Your task to perform on an android device: Set an alarm for 12pm Image 0: 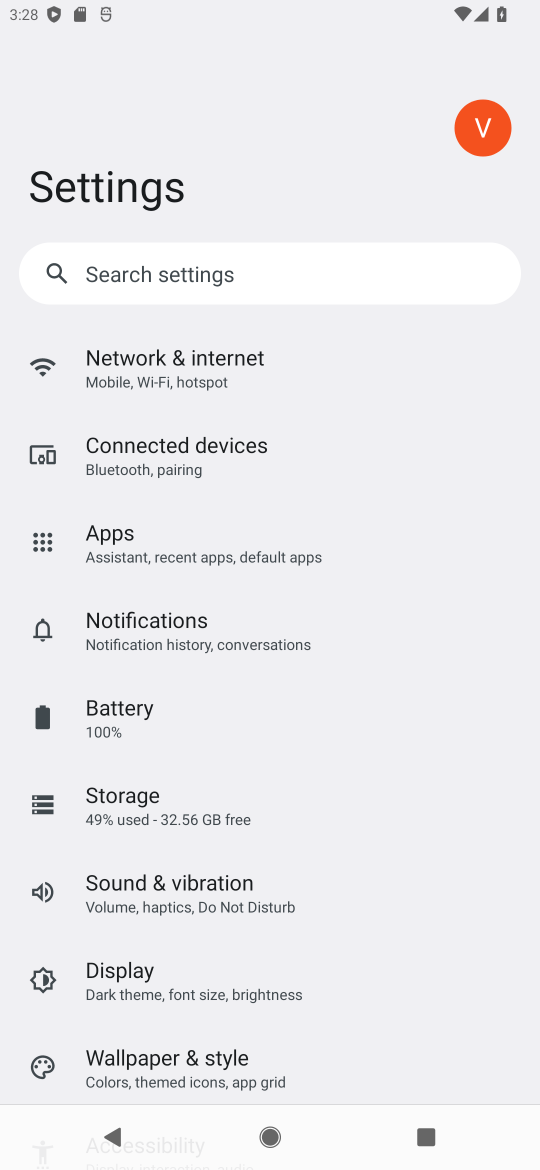
Step 0: press home button
Your task to perform on an android device: Set an alarm for 12pm Image 1: 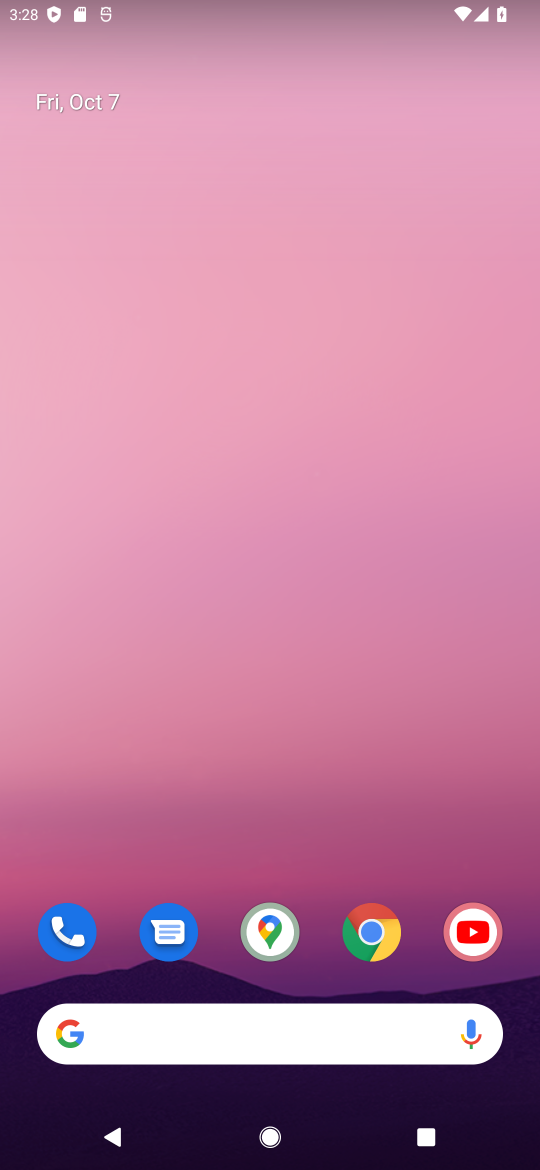
Step 1: drag from (199, 964) to (212, 651)
Your task to perform on an android device: Set an alarm for 12pm Image 2: 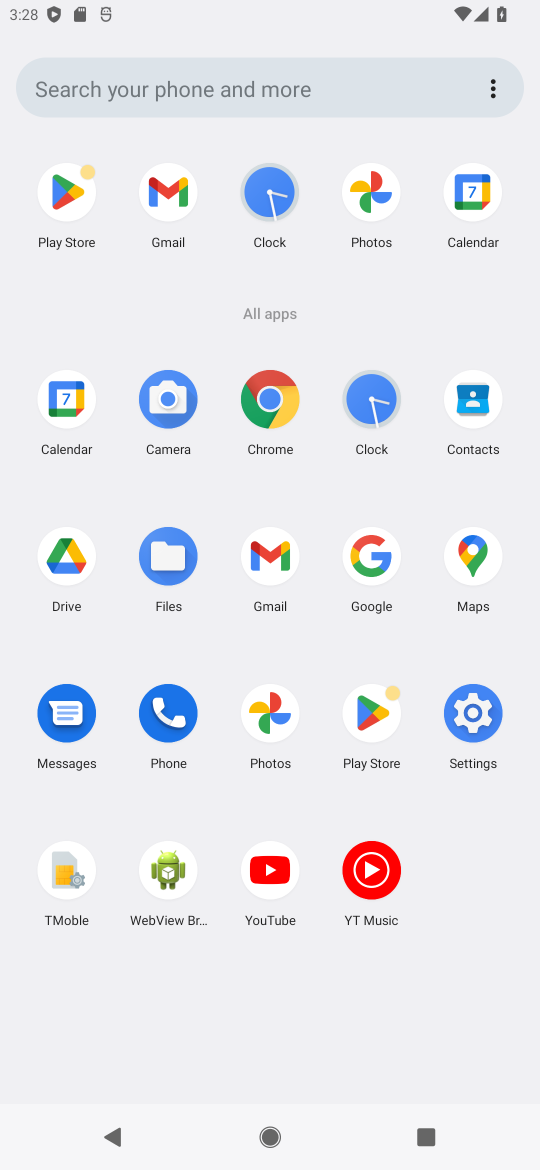
Step 2: click (282, 217)
Your task to perform on an android device: Set an alarm for 12pm Image 3: 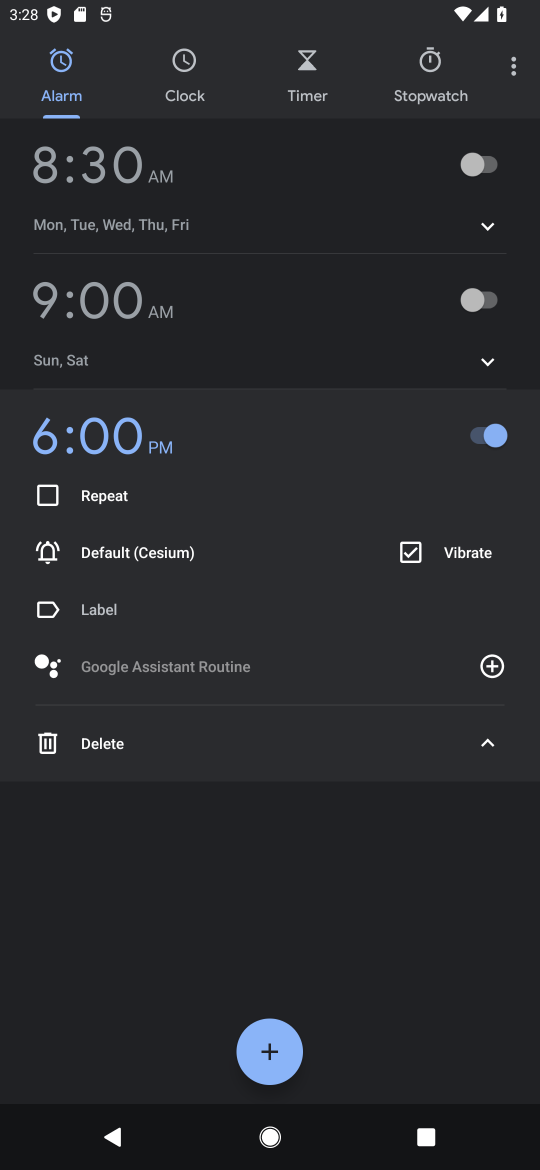
Step 3: click (277, 1068)
Your task to perform on an android device: Set an alarm for 12pm Image 4: 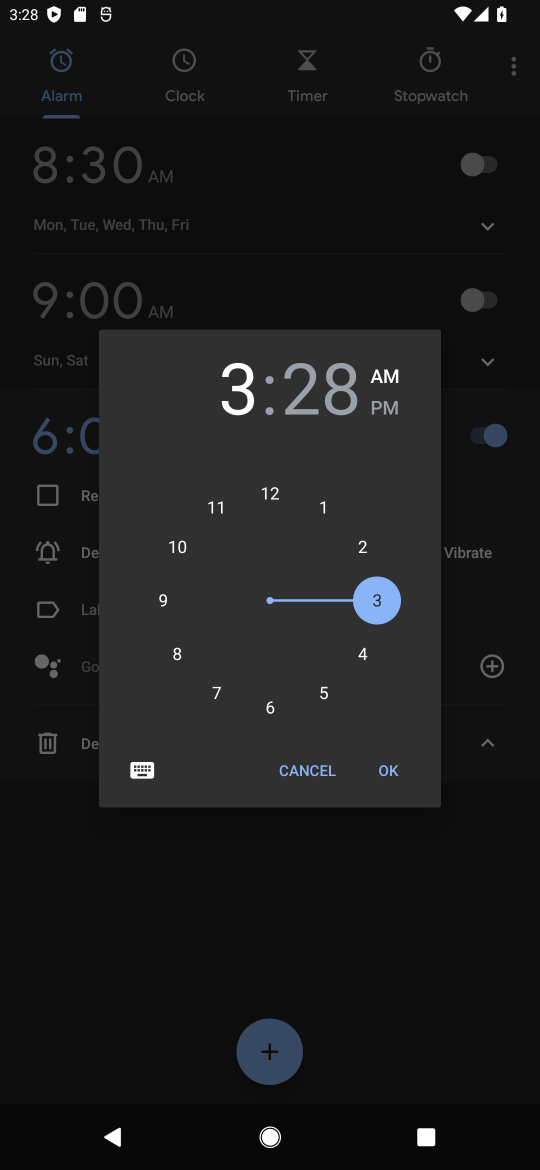
Step 4: click (282, 503)
Your task to perform on an android device: Set an alarm for 12pm Image 5: 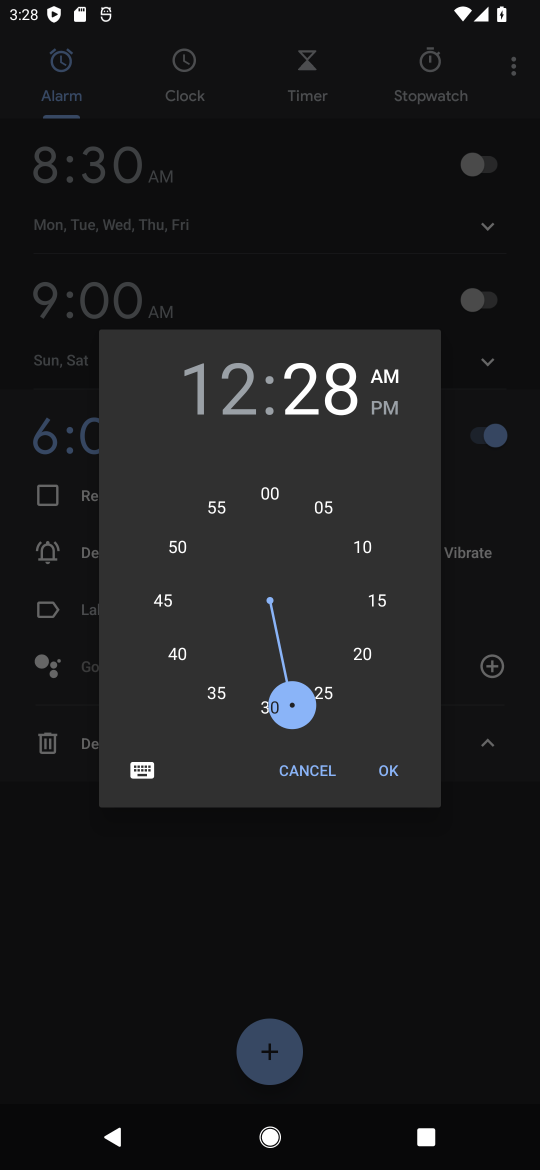
Step 5: click (282, 503)
Your task to perform on an android device: Set an alarm for 12pm Image 6: 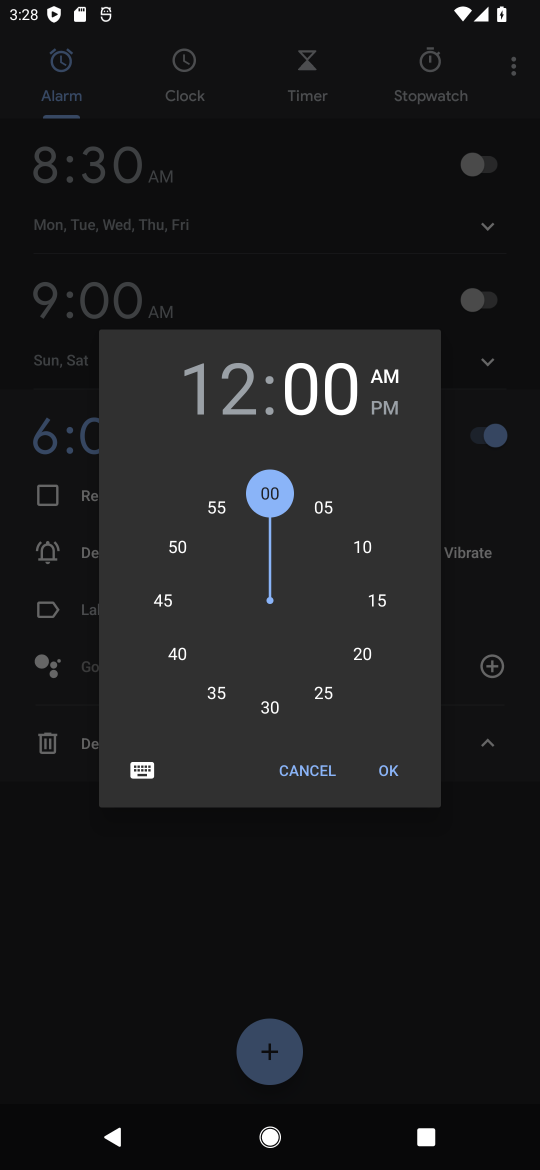
Step 6: click (380, 421)
Your task to perform on an android device: Set an alarm for 12pm Image 7: 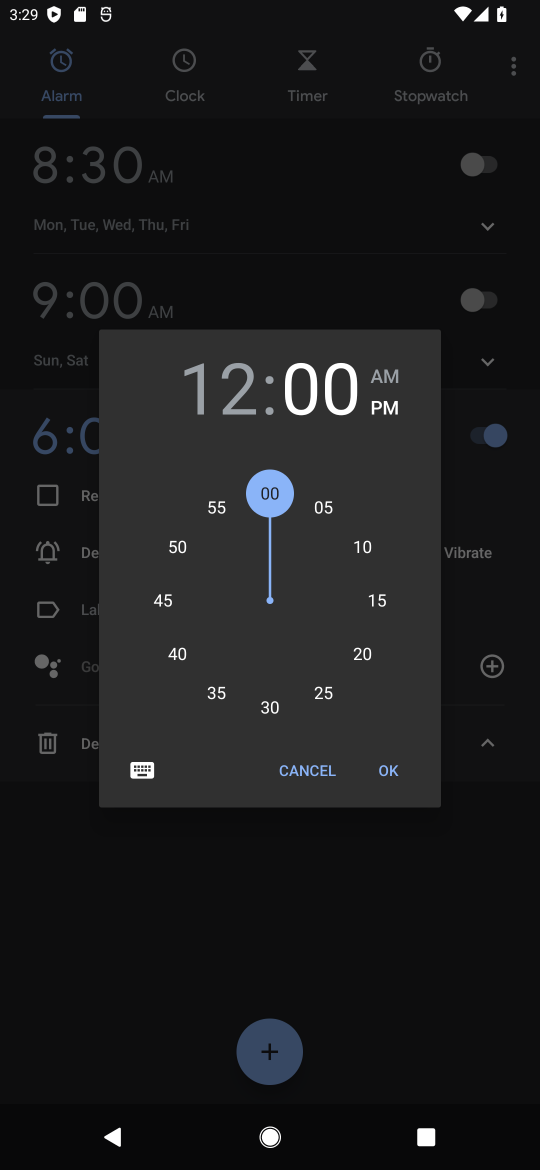
Step 7: click (398, 771)
Your task to perform on an android device: Set an alarm for 12pm Image 8: 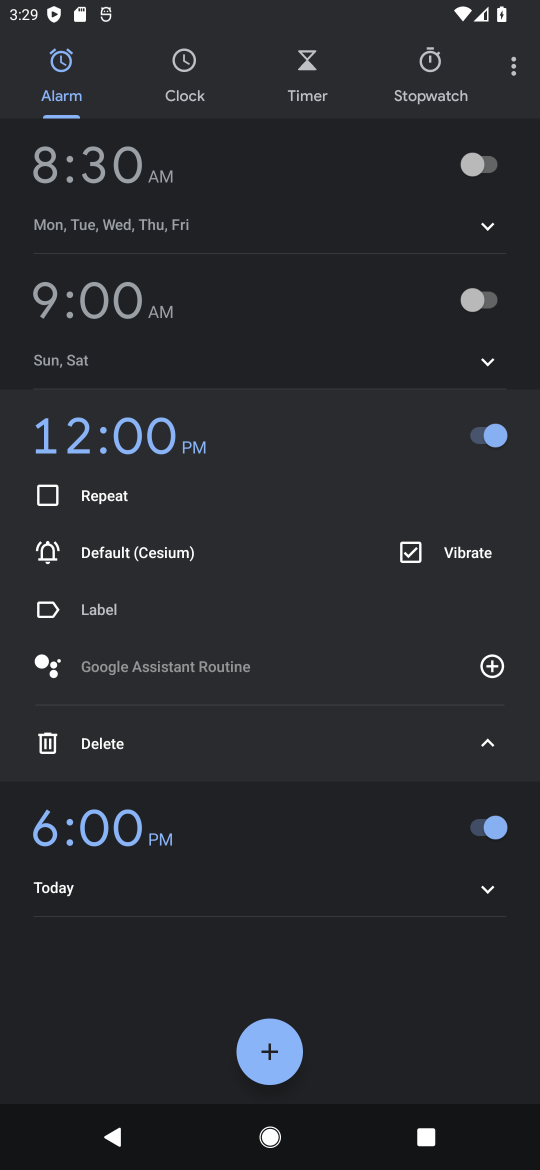
Step 8: task complete